Your task to perform on an android device: turn off notifications in google photos Image 0: 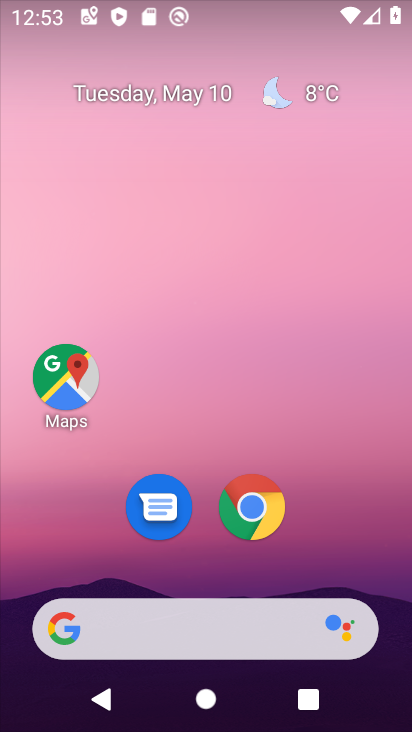
Step 0: drag from (211, 727) to (189, 240)
Your task to perform on an android device: turn off notifications in google photos Image 1: 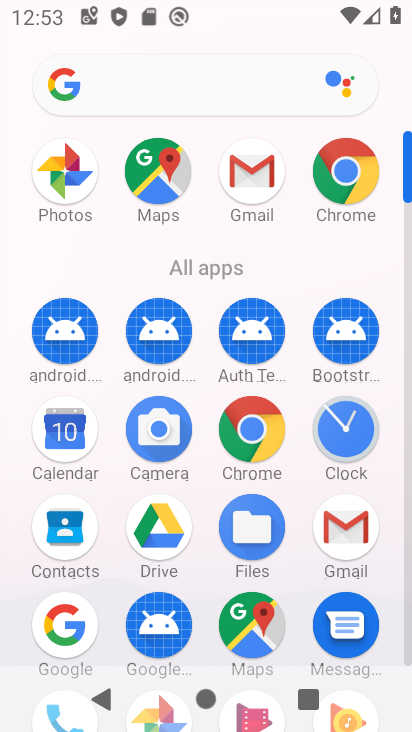
Step 1: click (69, 165)
Your task to perform on an android device: turn off notifications in google photos Image 2: 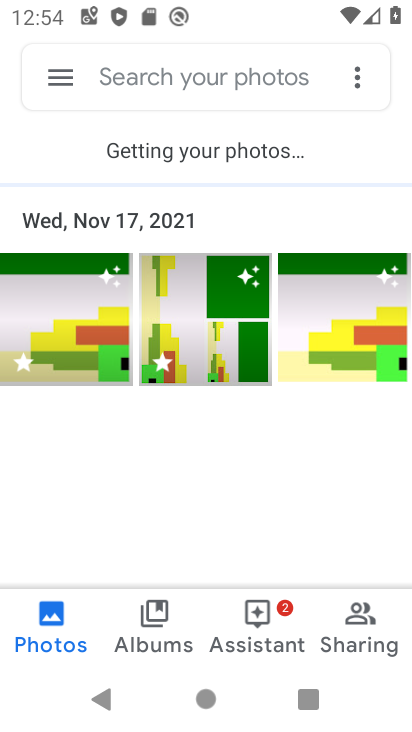
Step 2: click (65, 78)
Your task to perform on an android device: turn off notifications in google photos Image 3: 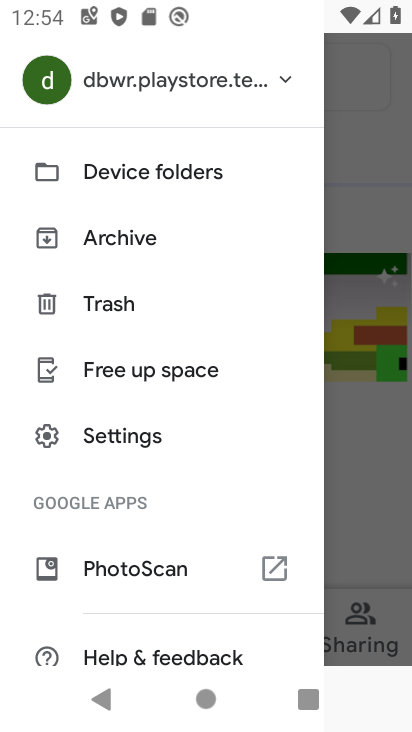
Step 3: click (115, 434)
Your task to perform on an android device: turn off notifications in google photos Image 4: 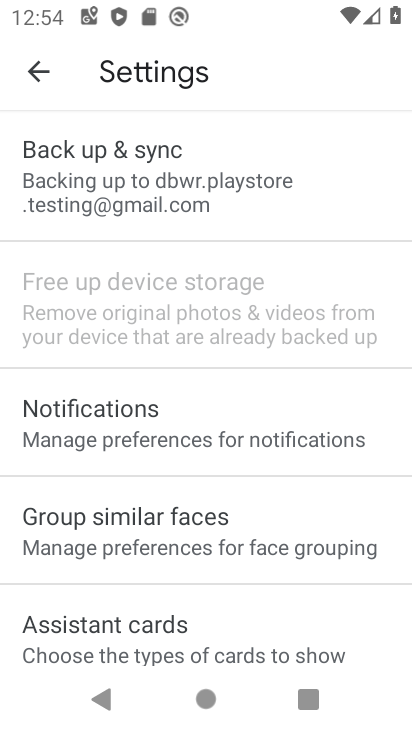
Step 4: click (115, 434)
Your task to perform on an android device: turn off notifications in google photos Image 5: 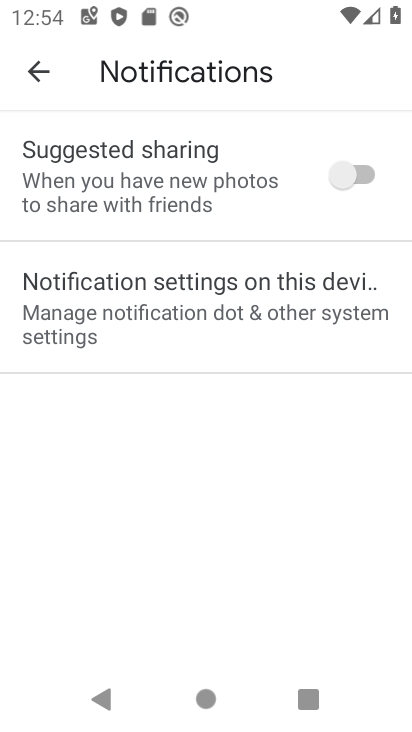
Step 5: click (187, 307)
Your task to perform on an android device: turn off notifications in google photos Image 6: 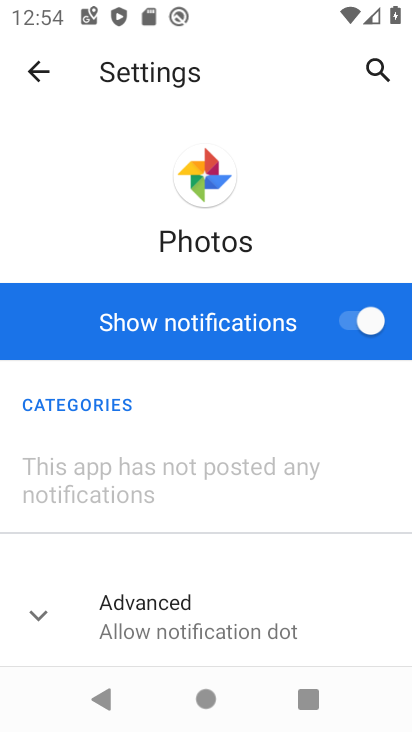
Step 6: click (349, 320)
Your task to perform on an android device: turn off notifications in google photos Image 7: 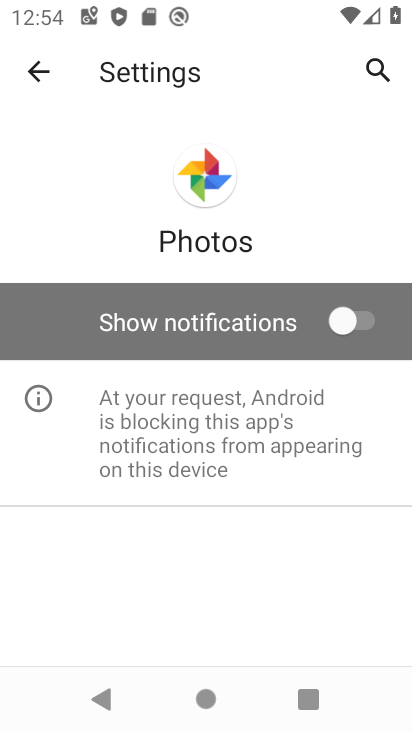
Step 7: task complete